Your task to perform on an android device: Open battery settings Image 0: 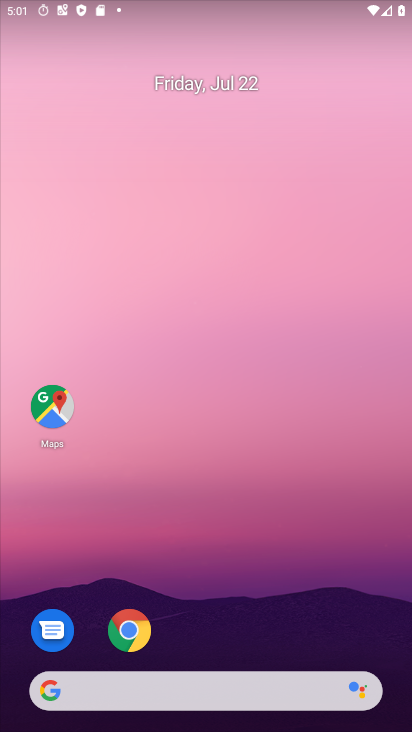
Step 0: drag from (242, 602) to (98, 56)
Your task to perform on an android device: Open battery settings Image 1: 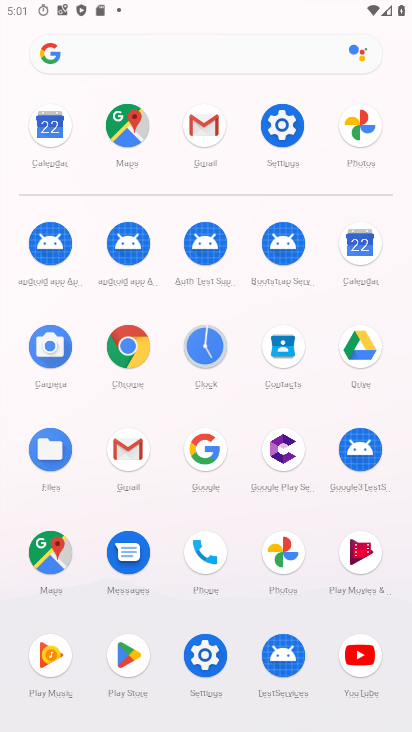
Step 1: click (212, 656)
Your task to perform on an android device: Open battery settings Image 2: 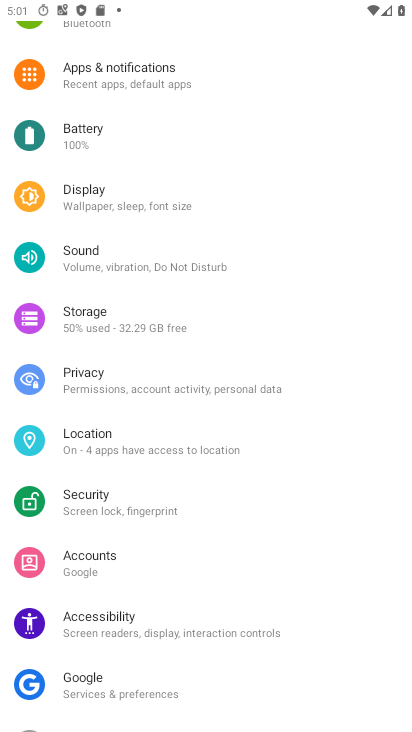
Step 2: click (117, 134)
Your task to perform on an android device: Open battery settings Image 3: 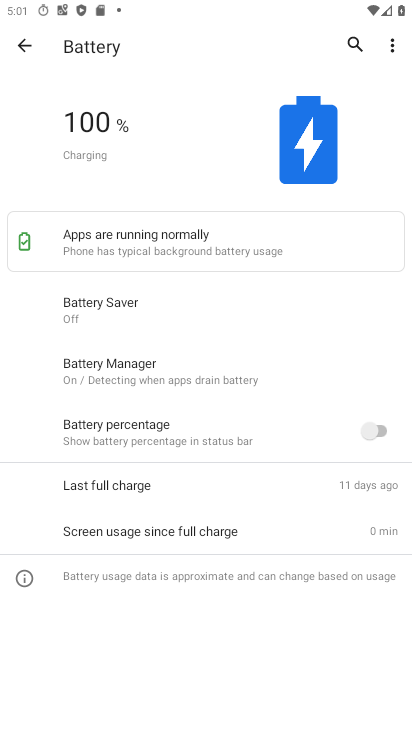
Step 3: task complete